Your task to perform on an android device: Go to eBay Image 0: 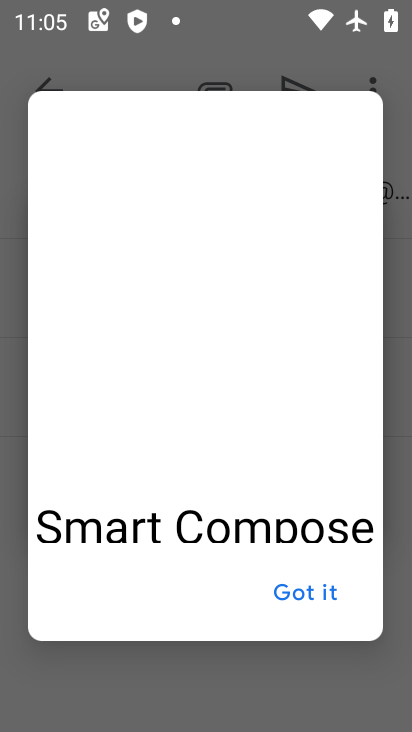
Step 0: press home button
Your task to perform on an android device: Go to eBay Image 1: 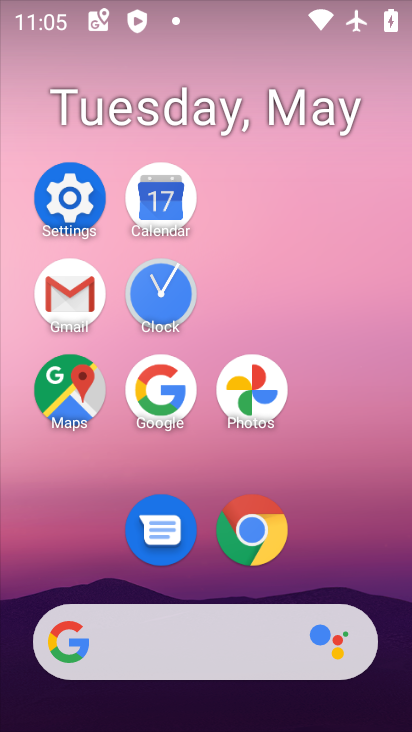
Step 1: click (272, 515)
Your task to perform on an android device: Go to eBay Image 2: 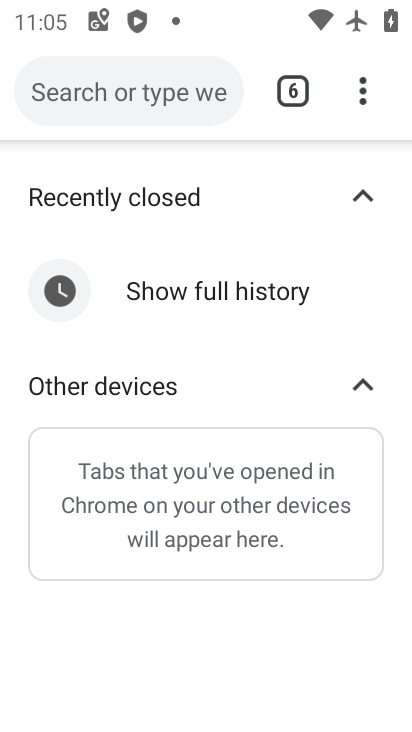
Step 2: click (287, 108)
Your task to perform on an android device: Go to eBay Image 3: 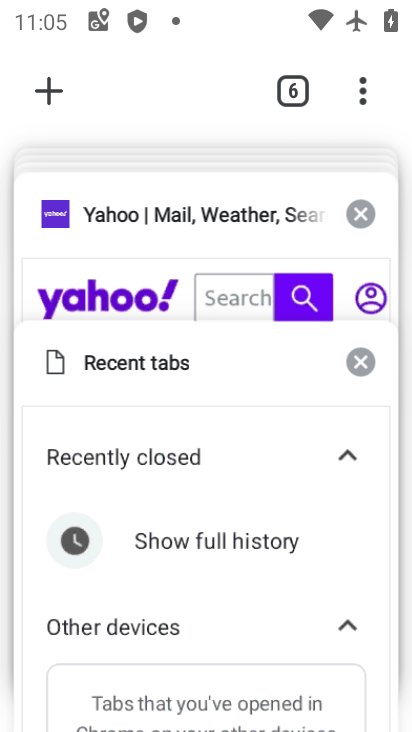
Step 3: drag from (204, 251) to (183, 528)
Your task to perform on an android device: Go to eBay Image 4: 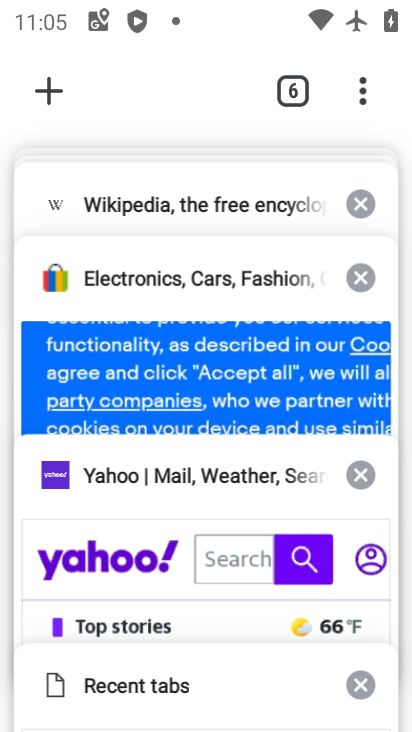
Step 4: click (191, 297)
Your task to perform on an android device: Go to eBay Image 5: 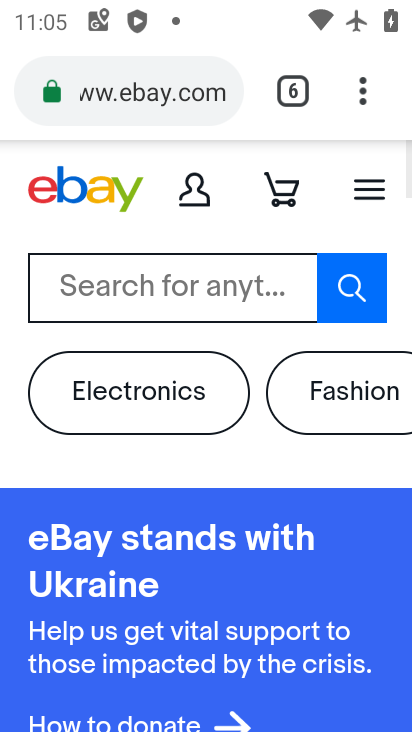
Step 5: task complete